Your task to perform on an android device: Open ESPN.com Image 0: 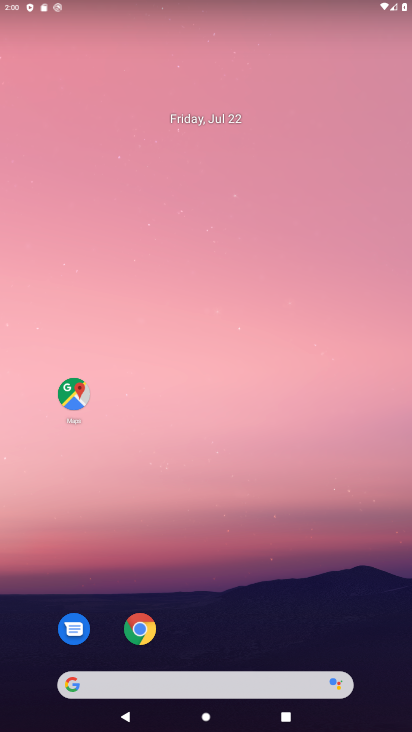
Step 0: press home button
Your task to perform on an android device: Open ESPN.com Image 1: 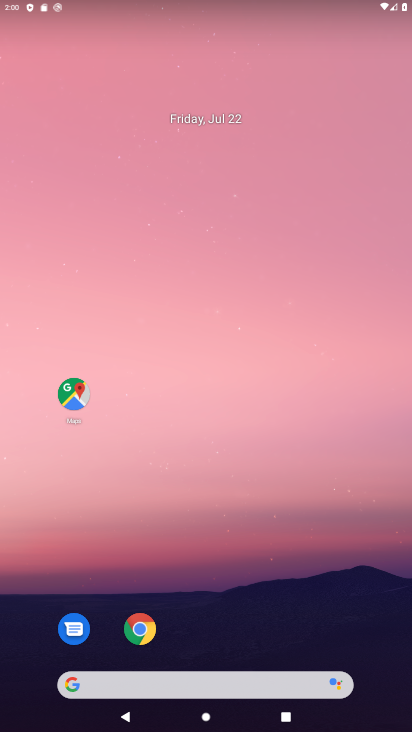
Step 1: click (73, 691)
Your task to perform on an android device: Open ESPN.com Image 2: 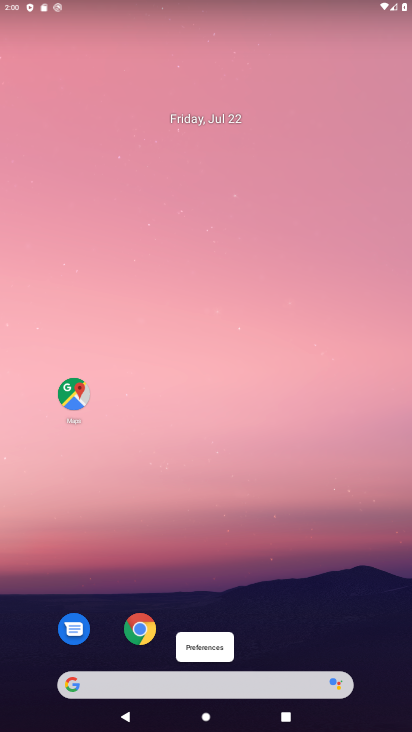
Step 2: click (66, 691)
Your task to perform on an android device: Open ESPN.com Image 3: 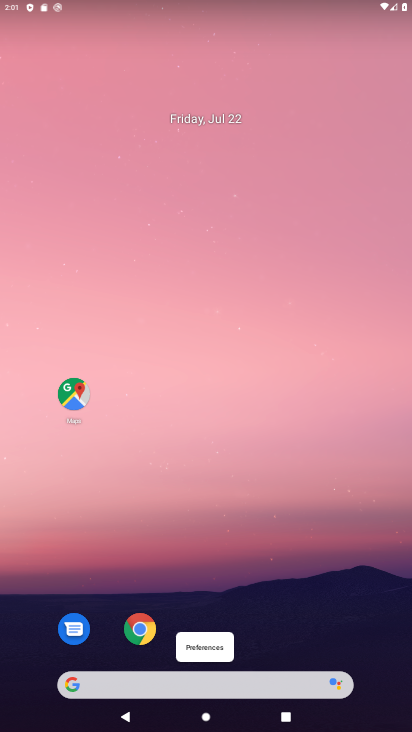
Step 3: click (72, 691)
Your task to perform on an android device: Open ESPN.com Image 4: 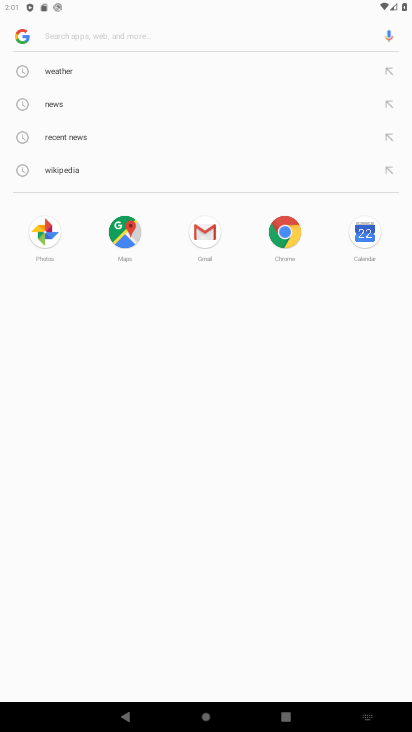
Step 4: type "ESPN.com"
Your task to perform on an android device: Open ESPN.com Image 5: 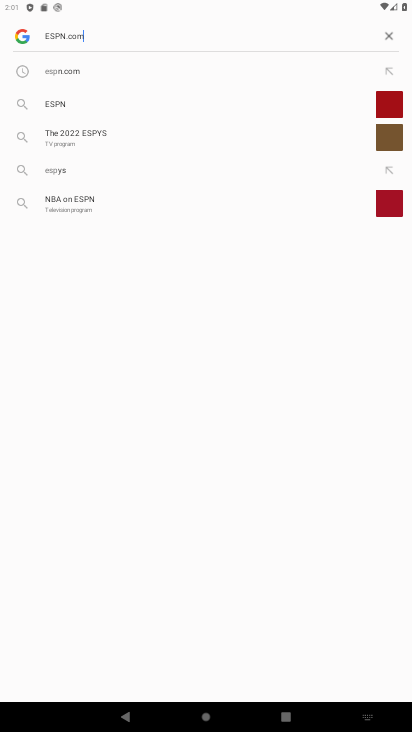
Step 5: press enter
Your task to perform on an android device: Open ESPN.com Image 6: 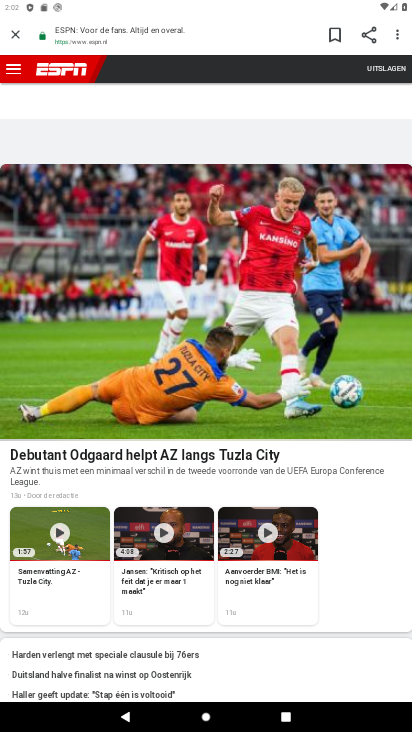
Step 6: task complete